Your task to perform on an android device: turn off smart reply in the gmail app Image 0: 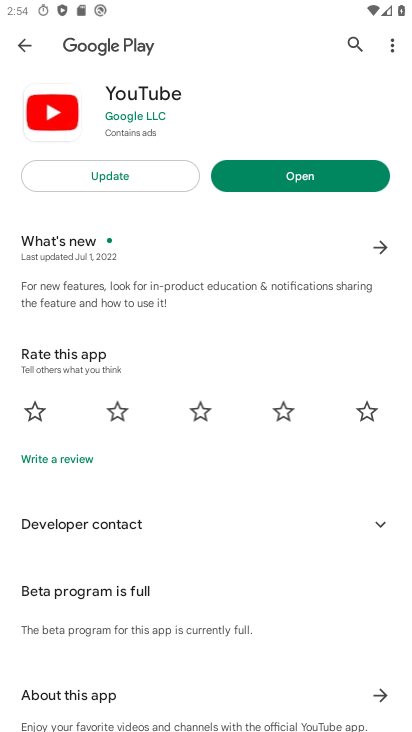
Step 0: press home button
Your task to perform on an android device: turn off smart reply in the gmail app Image 1: 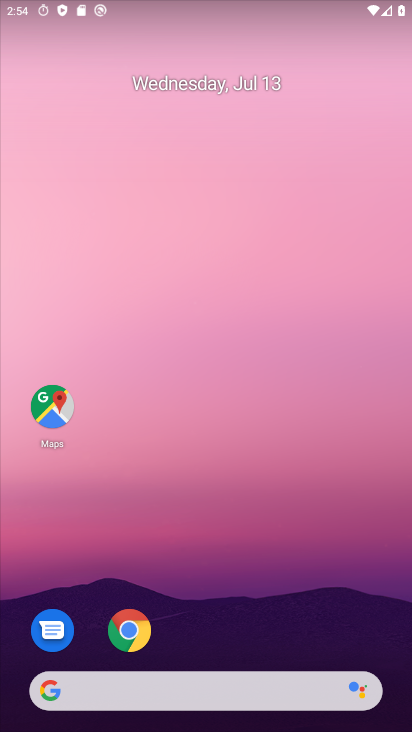
Step 1: drag from (148, 383) to (367, 9)
Your task to perform on an android device: turn off smart reply in the gmail app Image 2: 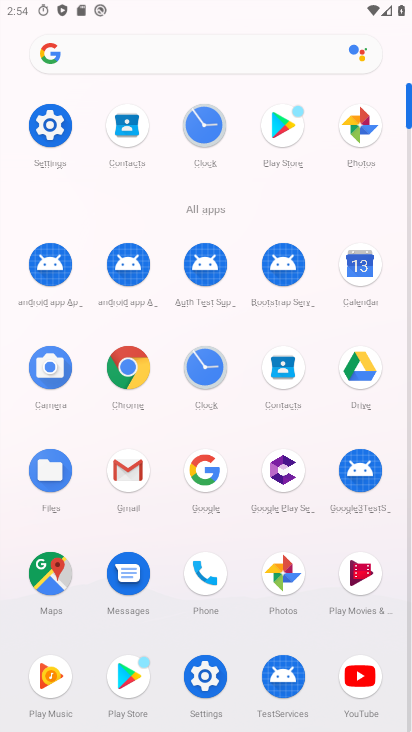
Step 2: click (124, 474)
Your task to perform on an android device: turn off smart reply in the gmail app Image 3: 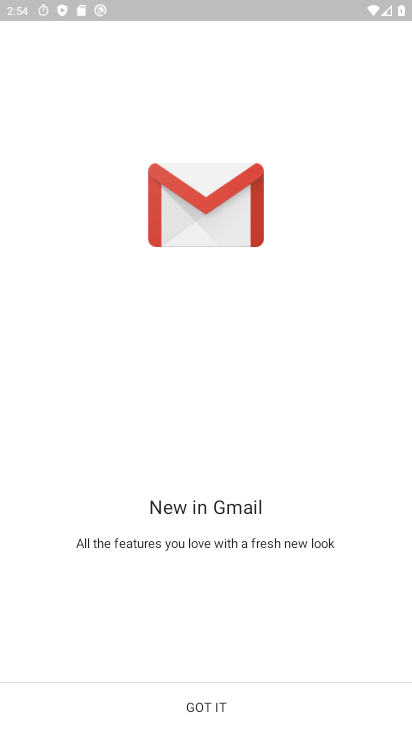
Step 3: click (241, 704)
Your task to perform on an android device: turn off smart reply in the gmail app Image 4: 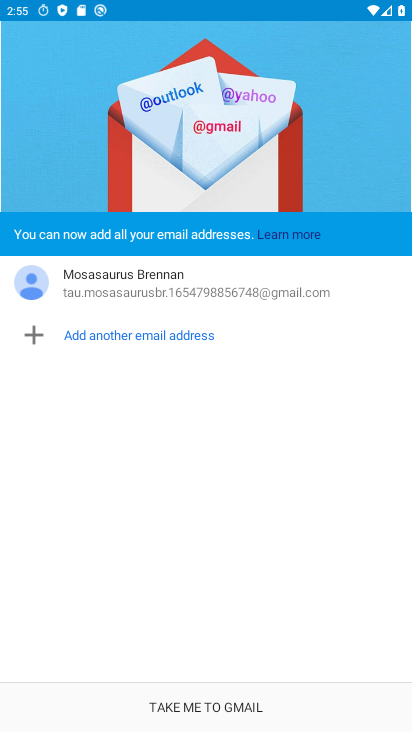
Step 4: click (189, 705)
Your task to perform on an android device: turn off smart reply in the gmail app Image 5: 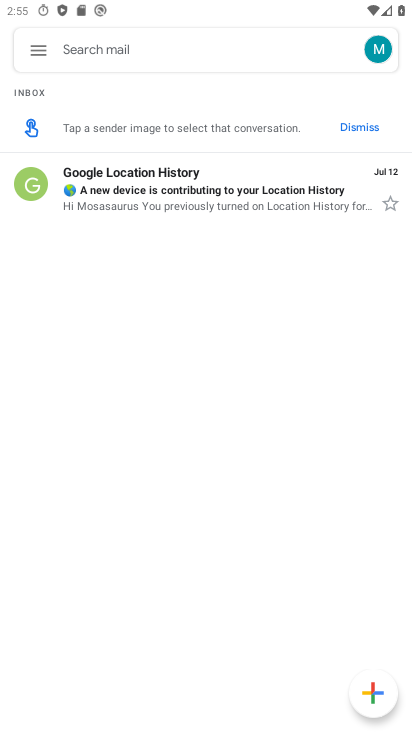
Step 5: click (26, 50)
Your task to perform on an android device: turn off smart reply in the gmail app Image 6: 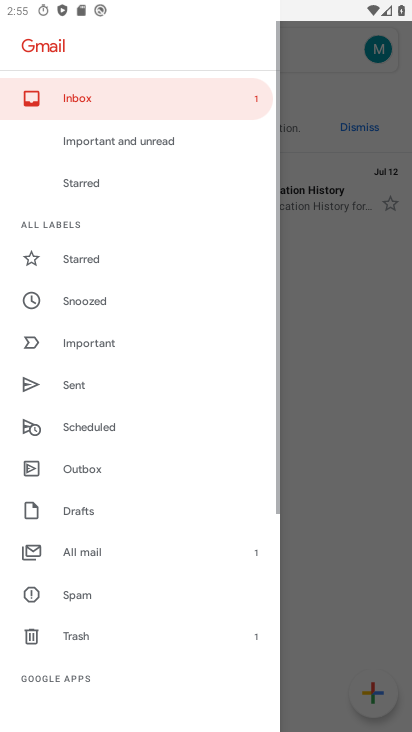
Step 6: click (95, 102)
Your task to perform on an android device: turn off smart reply in the gmail app Image 7: 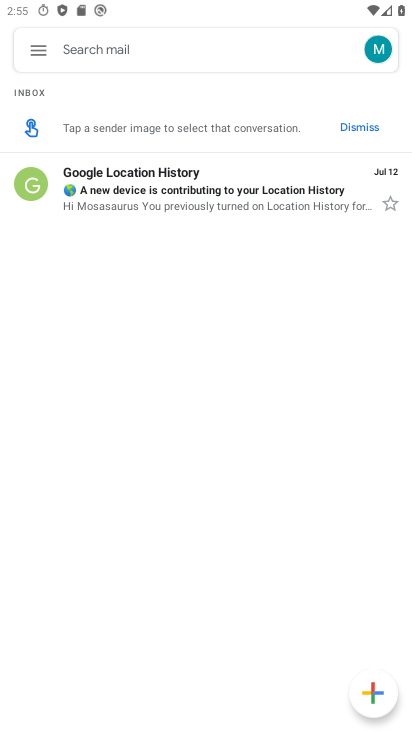
Step 7: task complete